Your task to perform on an android device: see creations saved in the google photos Image 0: 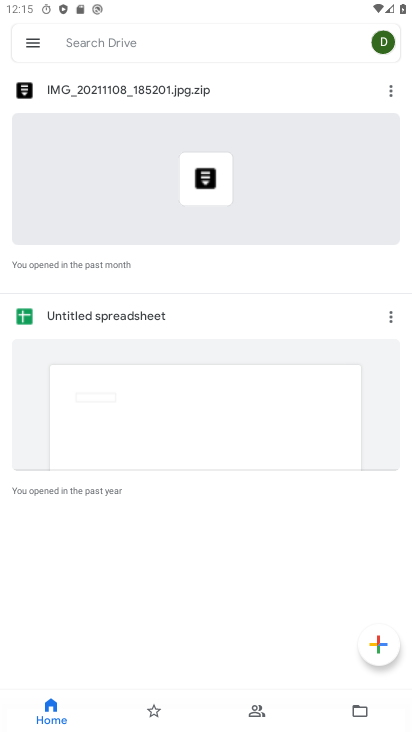
Step 0: press home button
Your task to perform on an android device: see creations saved in the google photos Image 1: 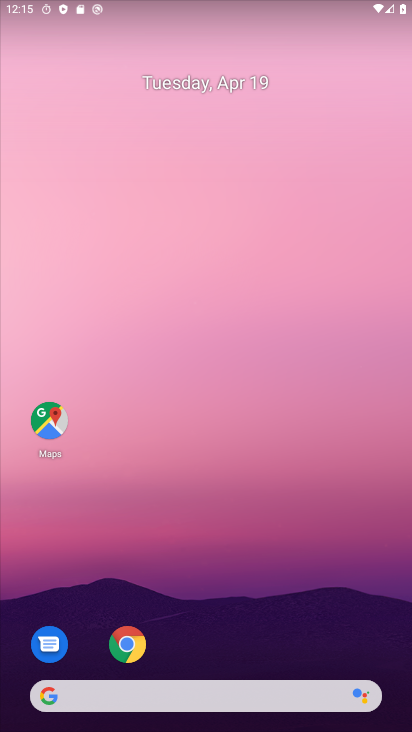
Step 1: drag from (230, 635) to (191, 240)
Your task to perform on an android device: see creations saved in the google photos Image 2: 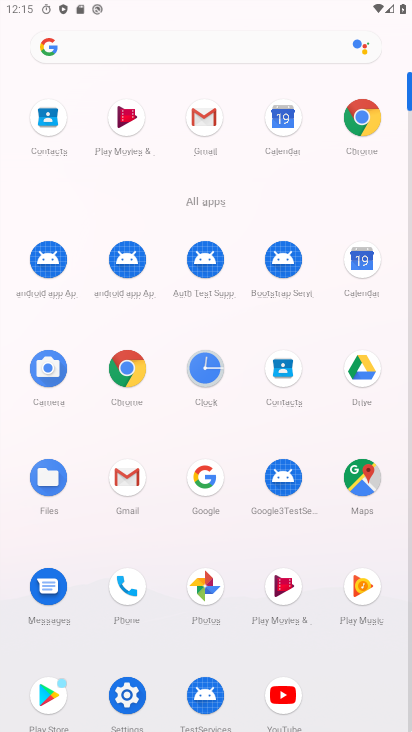
Step 2: click (201, 585)
Your task to perform on an android device: see creations saved in the google photos Image 3: 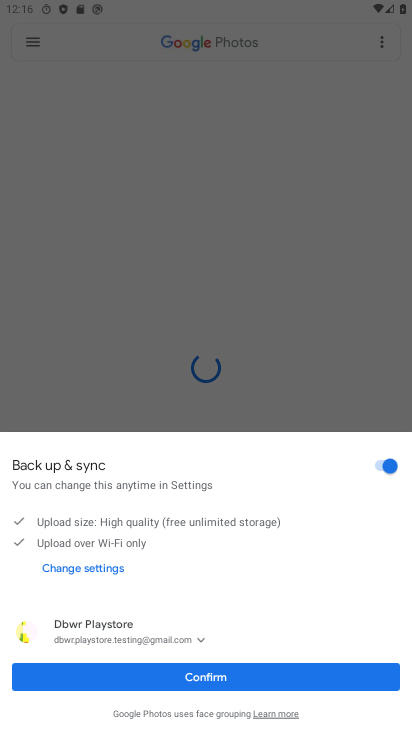
Step 3: click (264, 673)
Your task to perform on an android device: see creations saved in the google photos Image 4: 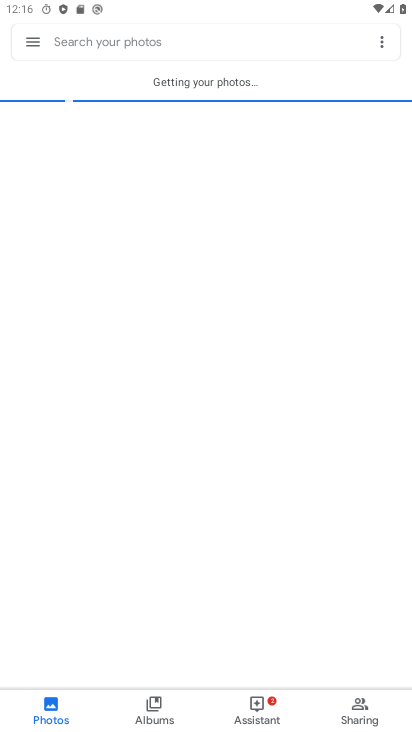
Step 4: click (150, 705)
Your task to perform on an android device: see creations saved in the google photos Image 5: 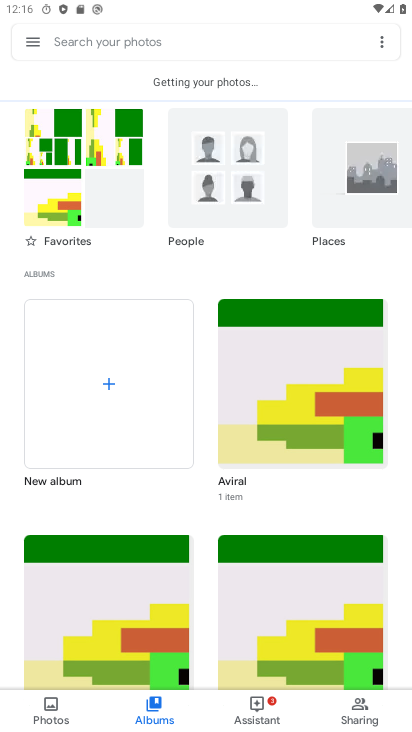
Step 5: click (51, 146)
Your task to perform on an android device: see creations saved in the google photos Image 6: 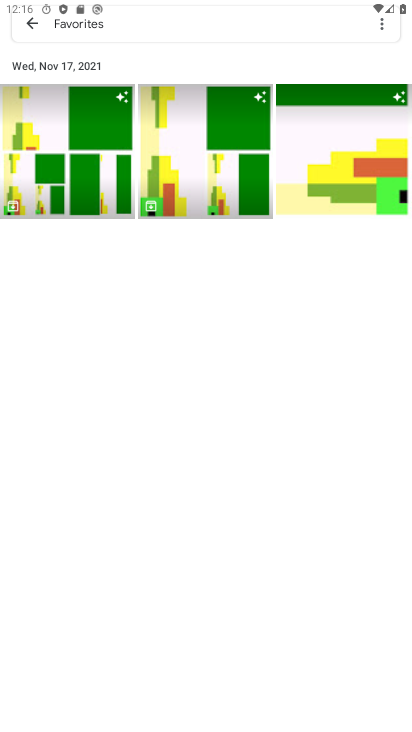
Step 6: task complete